Your task to perform on an android device: toggle location history Image 0: 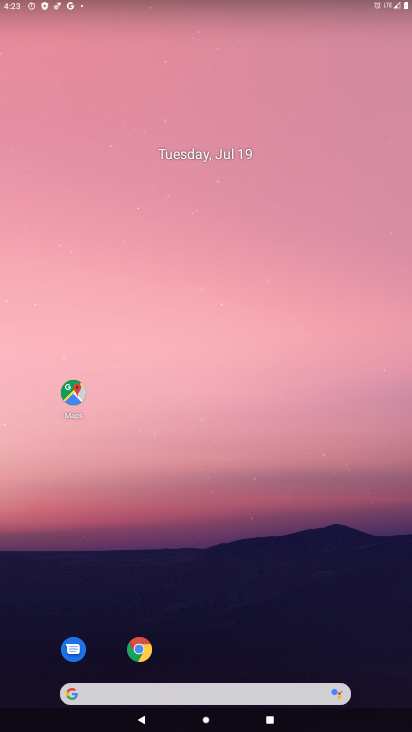
Step 0: click (251, 189)
Your task to perform on an android device: toggle location history Image 1: 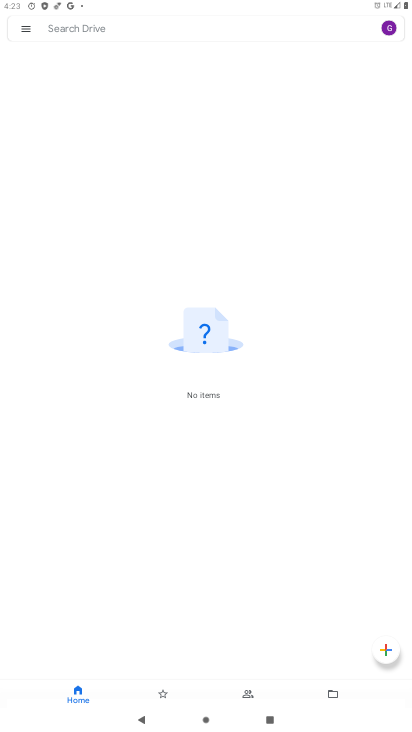
Step 1: press home button
Your task to perform on an android device: toggle location history Image 2: 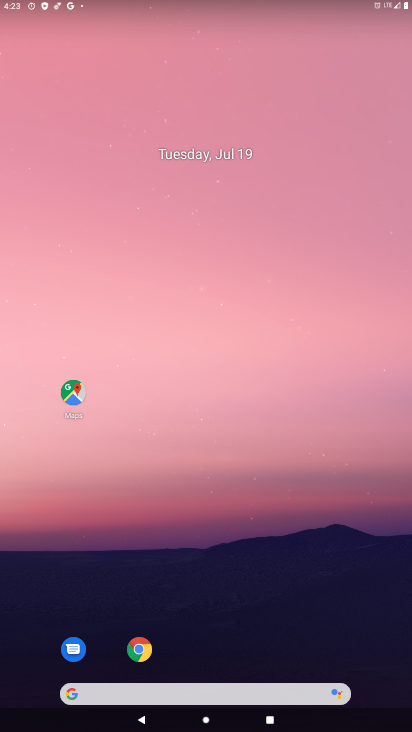
Step 2: drag from (239, 618) to (160, 110)
Your task to perform on an android device: toggle location history Image 3: 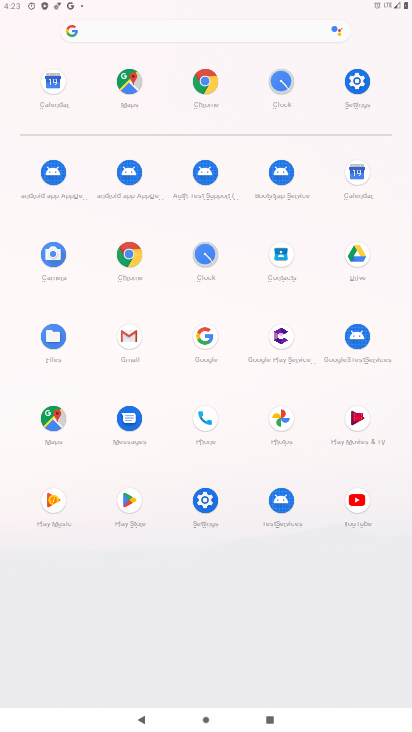
Step 3: click (125, 87)
Your task to perform on an android device: toggle location history Image 4: 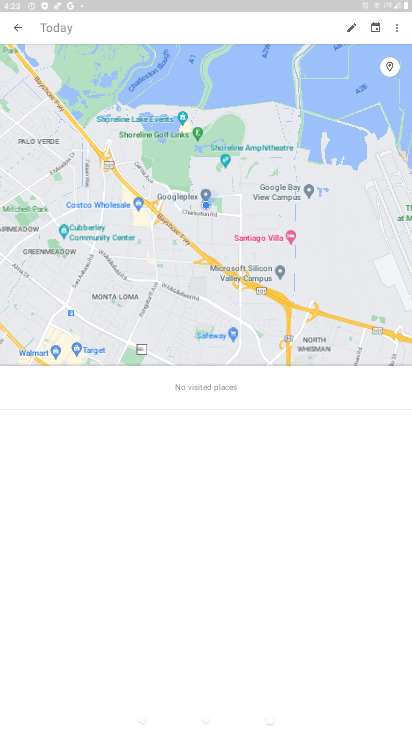
Step 4: click (403, 21)
Your task to perform on an android device: toggle location history Image 5: 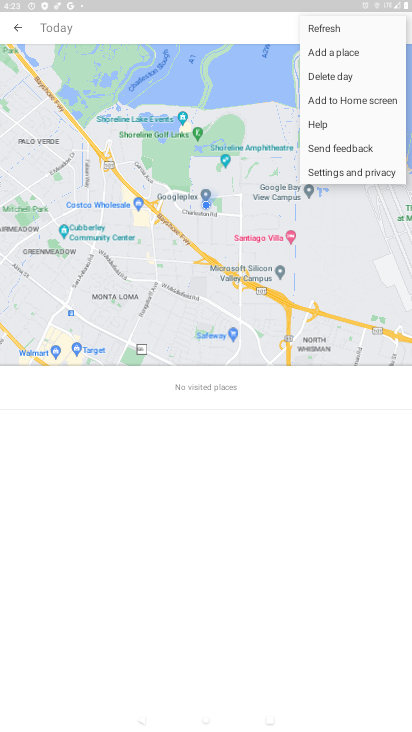
Step 5: click (351, 170)
Your task to perform on an android device: toggle location history Image 6: 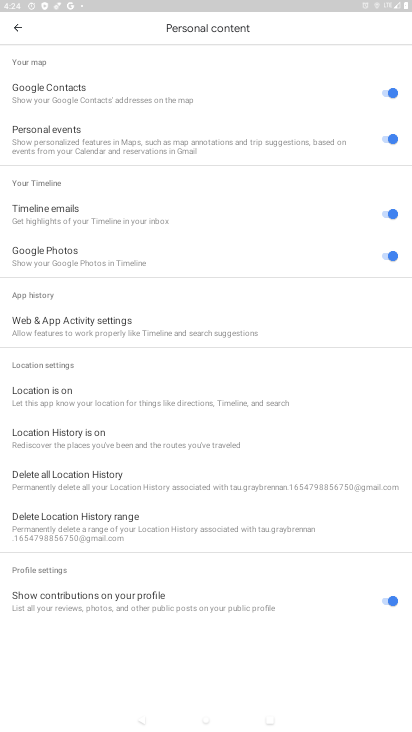
Step 6: click (191, 436)
Your task to perform on an android device: toggle location history Image 7: 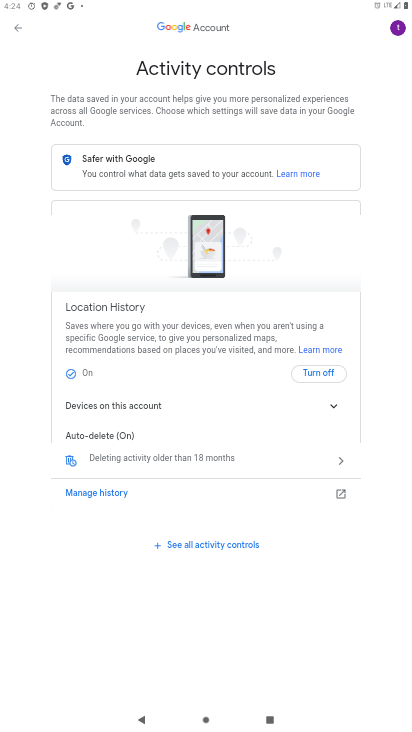
Step 7: click (333, 367)
Your task to perform on an android device: toggle location history Image 8: 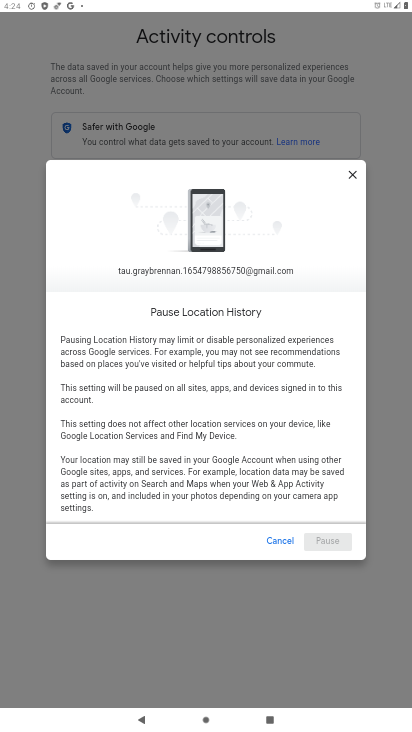
Step 8: drag from (317, 484) to (213, 41)
Your task to perform on an android device: toggle location history Image 9: 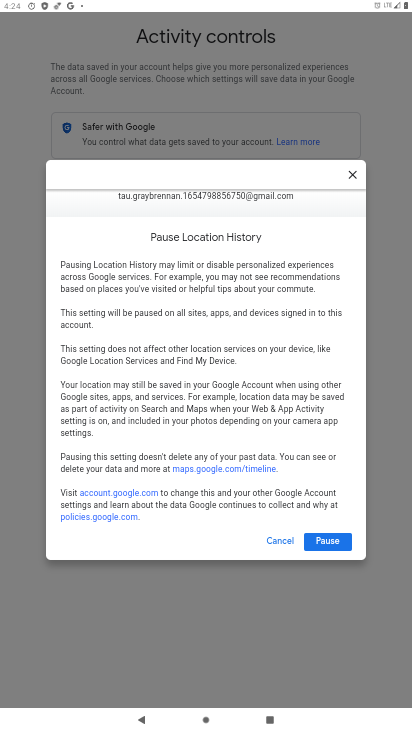
Step 9: click (331, 547)
Your task to perform on an android device: toggle location history Image 10: 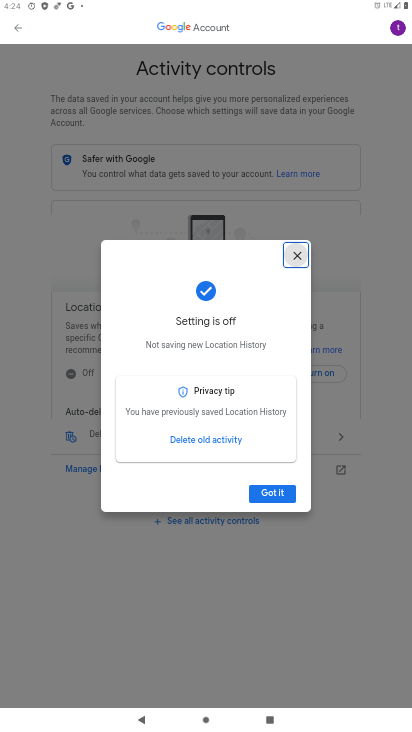
Step 10: click (269, 497)
Your task to perform on an android device: toggle location history Image 11: 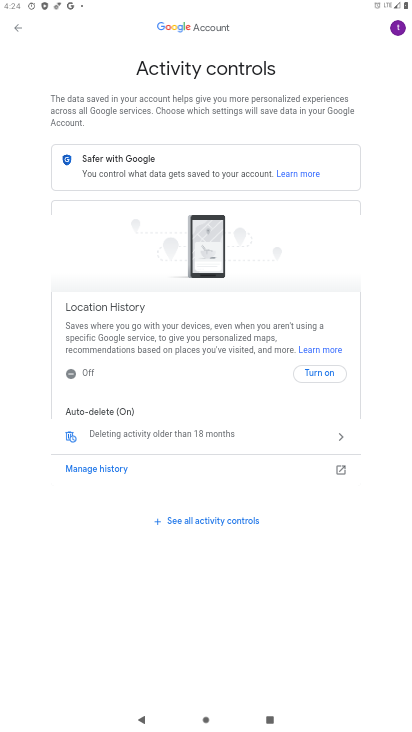
Step 11: task complete